Your task to perform on an android device: Go to settings Image 0: 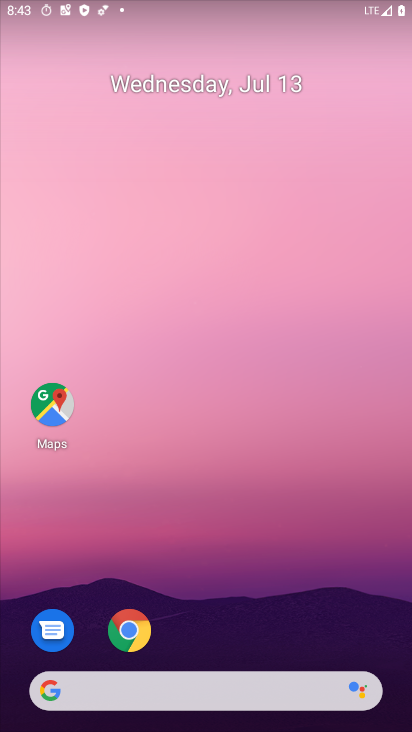
Step 0: drag from (331, 616) to (377, 157)
Your task to perform on an android device: Go to settings Image 1: 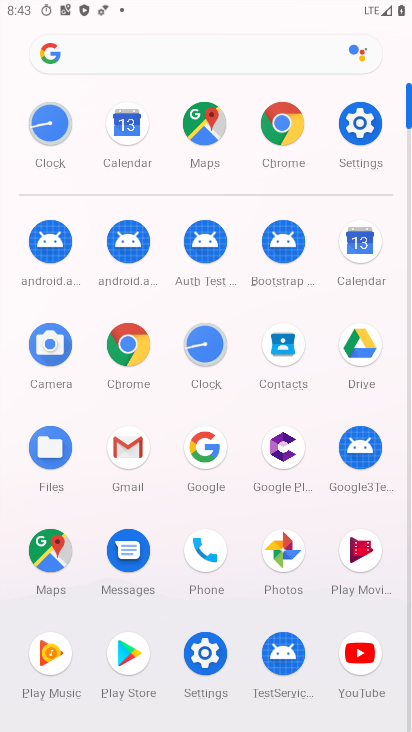
Step 1: click (360, 135)
Your task to perform on an android device: Go to settings Image 2: 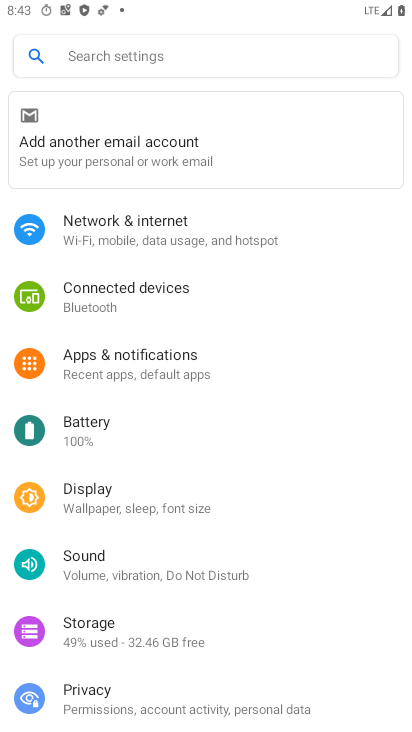
Step 2: task complete